Your task to perform on an android device: turn on bluetooth scan Image 0: 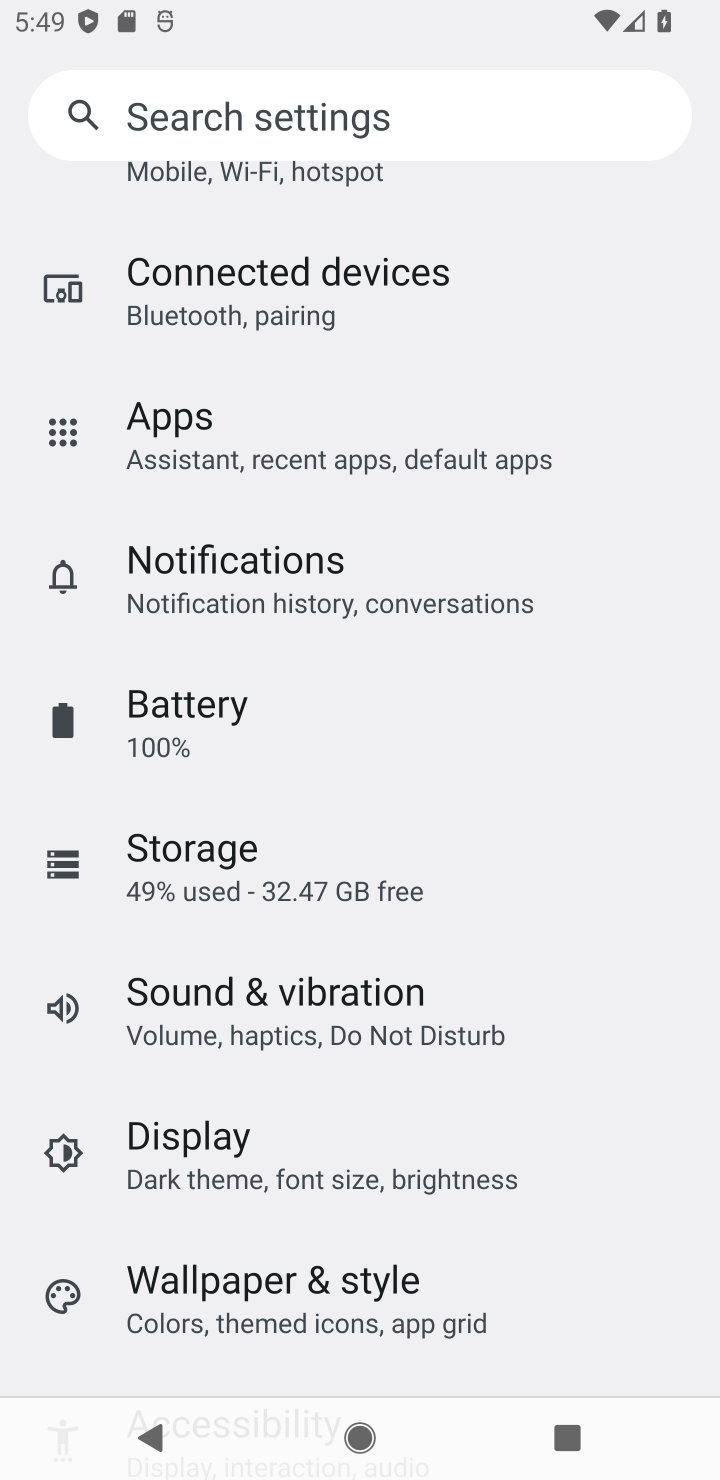
Step 0: drag from (525, 1114) to (515, 298)
Your task to perform on an android device: turn on bluetooth scan Image 1: 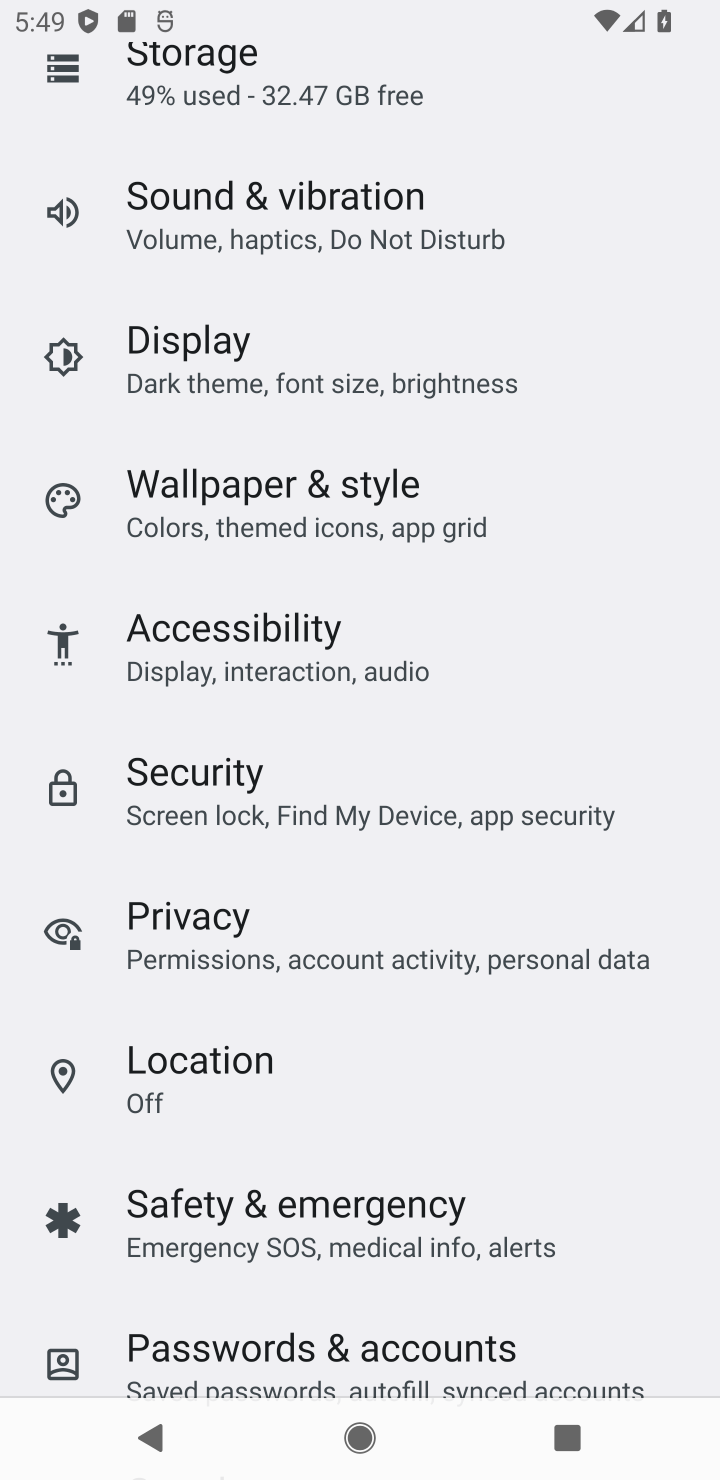
Step 1: click (258, 1069)
Your task to perform on an android device: turn on bluetooth scan Image 2: 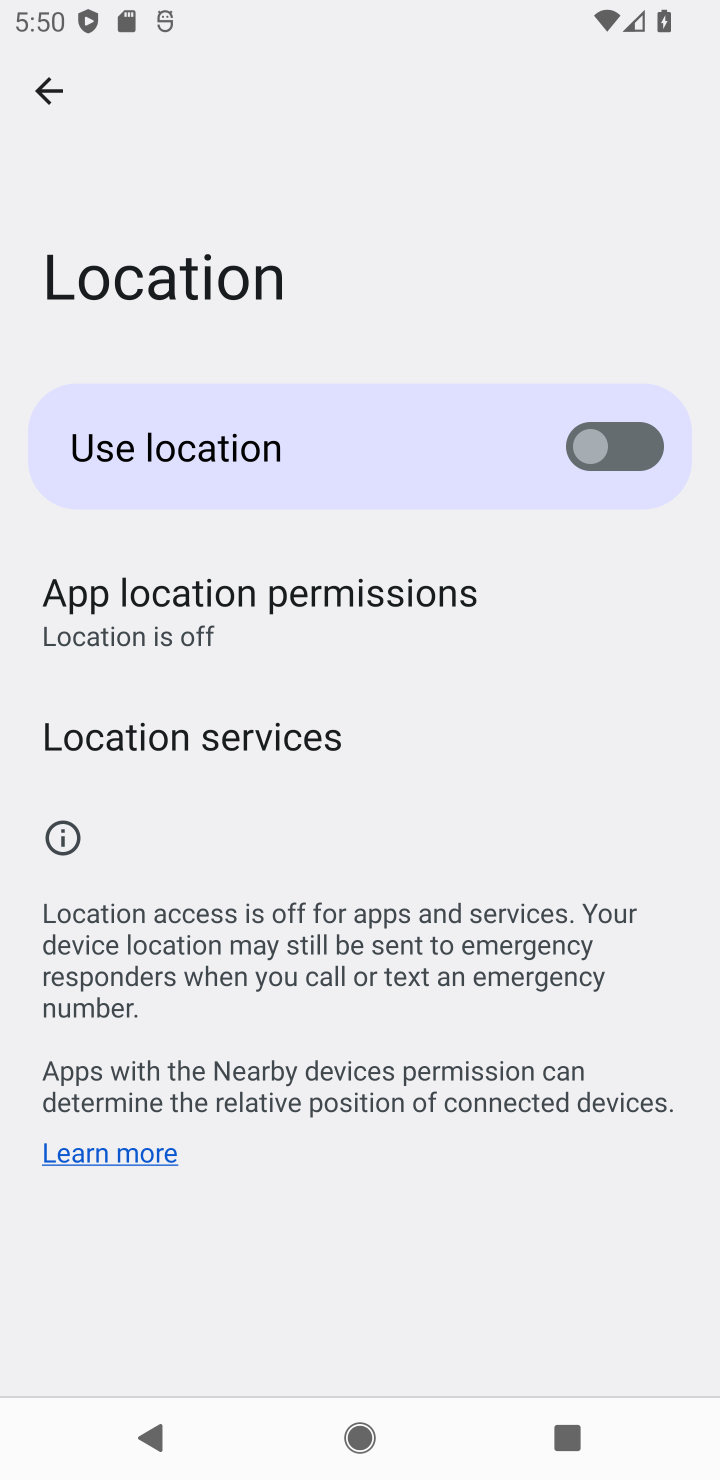
Step 2: click (168, 741)
Your task to perform on an android device: turn on bluetooth scan Image 3: 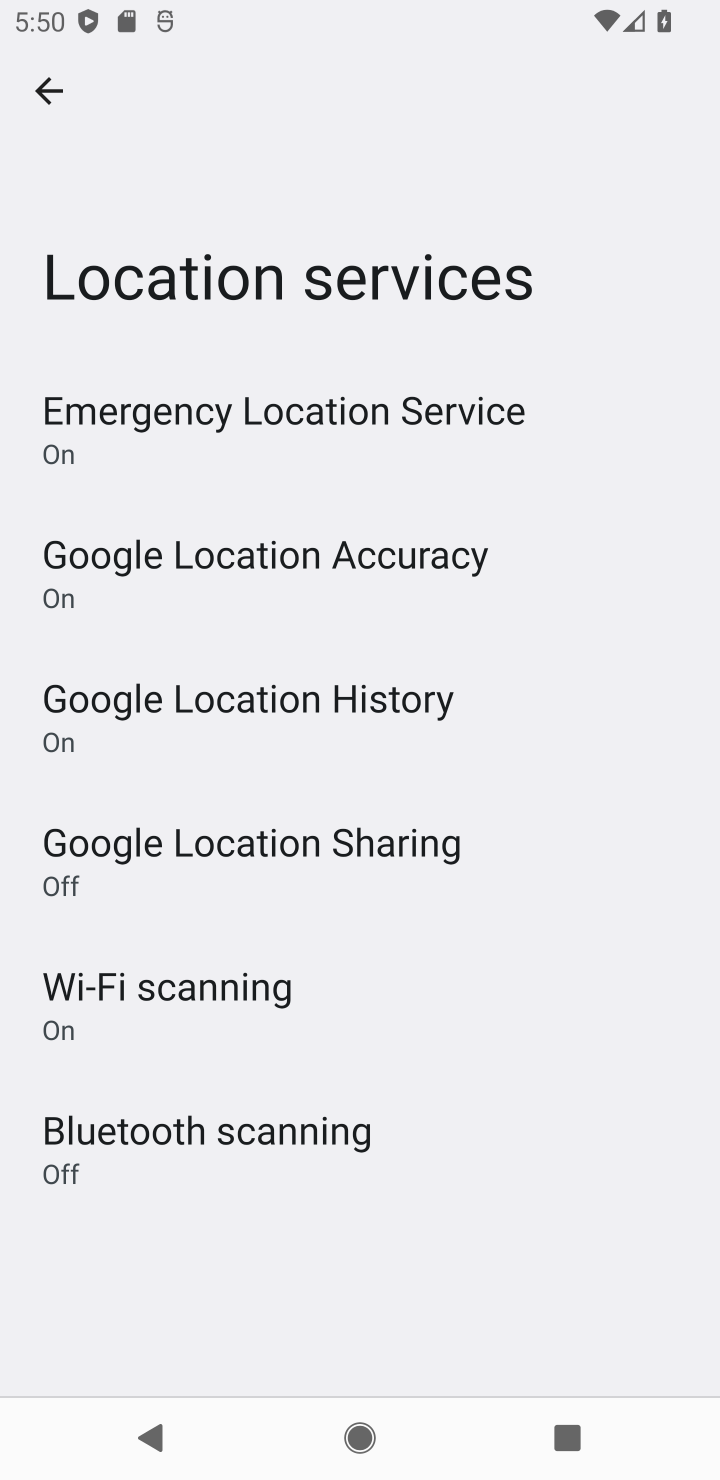
Step 3: click (194, 1115)
Your task to perform on an android device: turn on bluetooth scan Image 4: 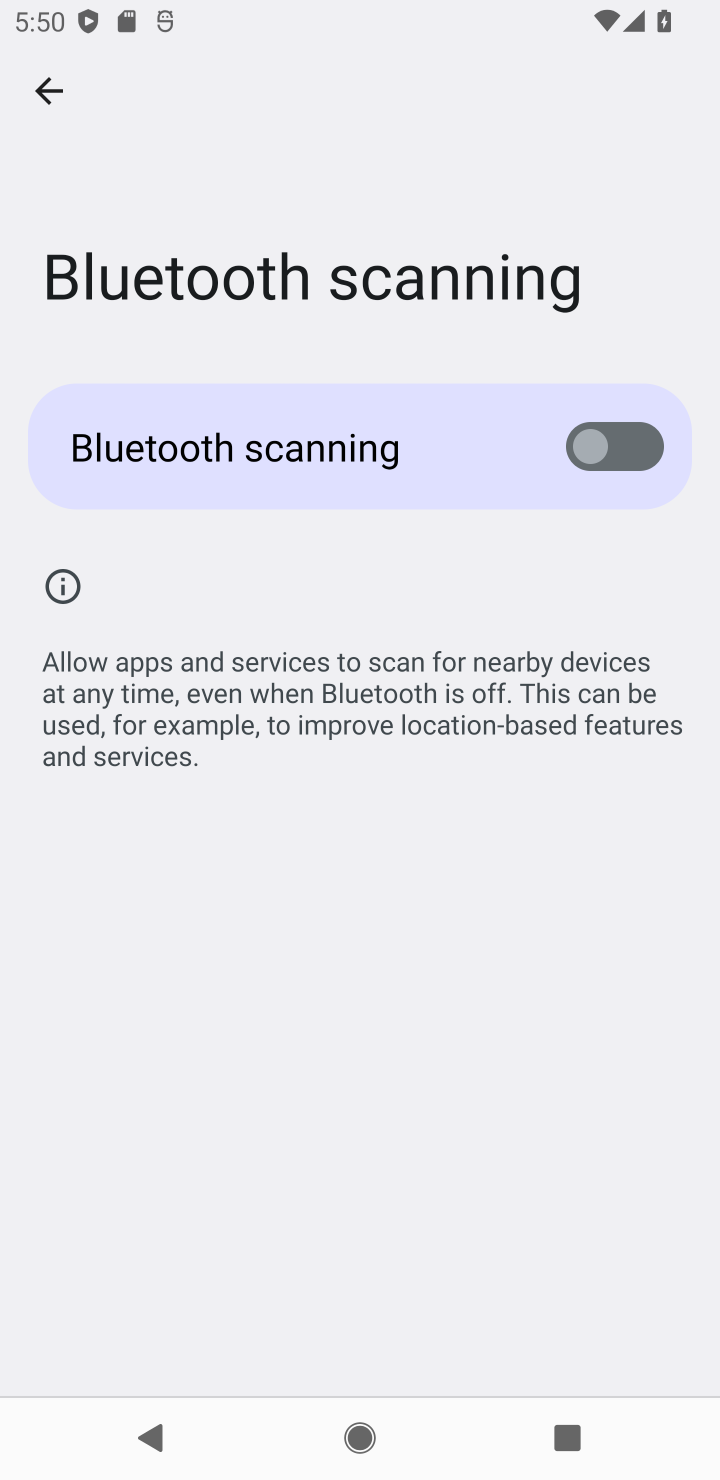
Step 4: click (599, 455)
Your task to perform on an android device: turn on bluetooth scan Image 5: 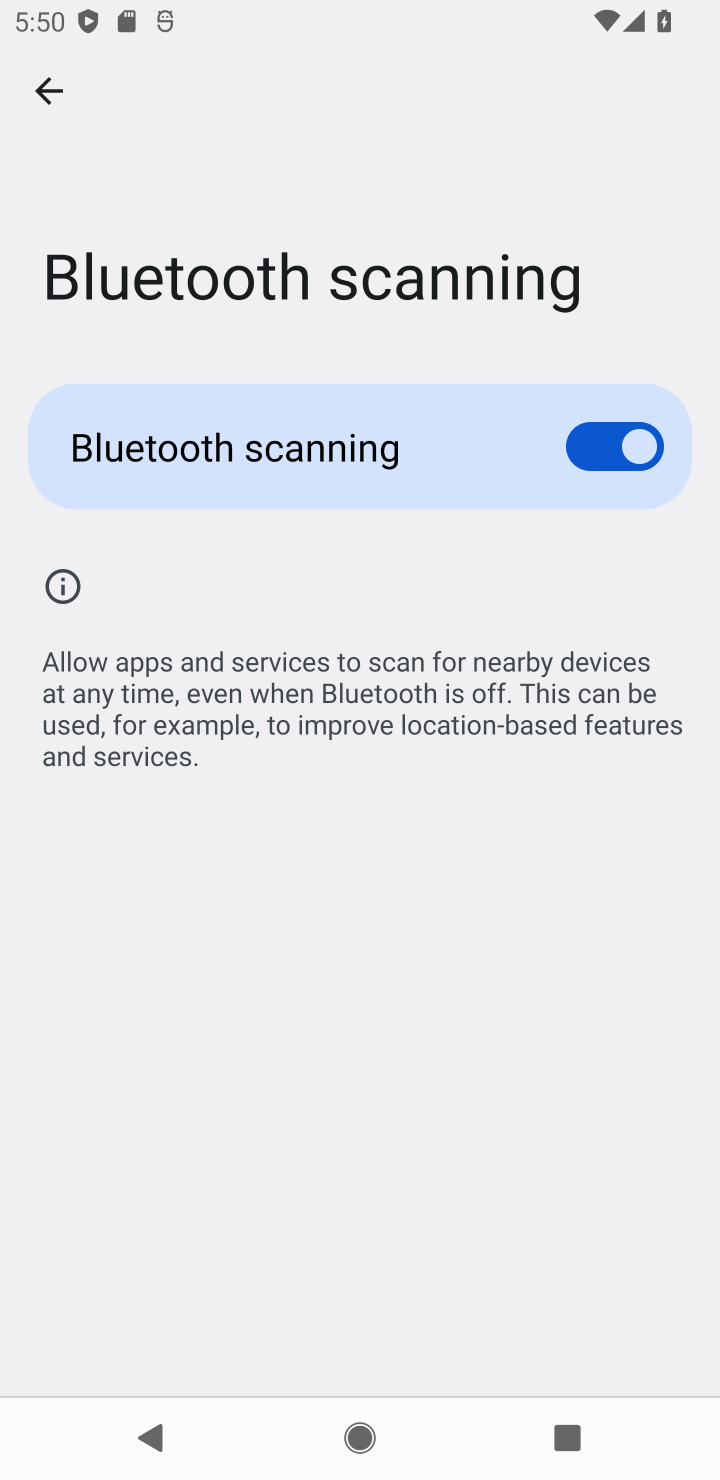
Step 5: task complete